Your task to perform on an android device: Open Chrome and go to the settings page Image 0: 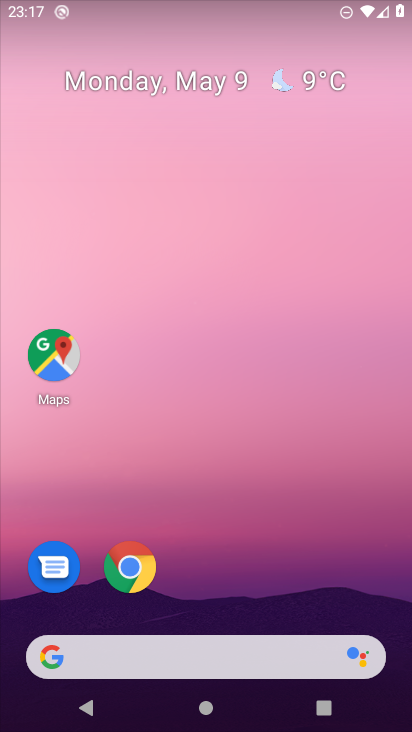
Step 0: click (206, 81)
Your task to perform on an android device: Open Chrome and go to the settings page Image 1: 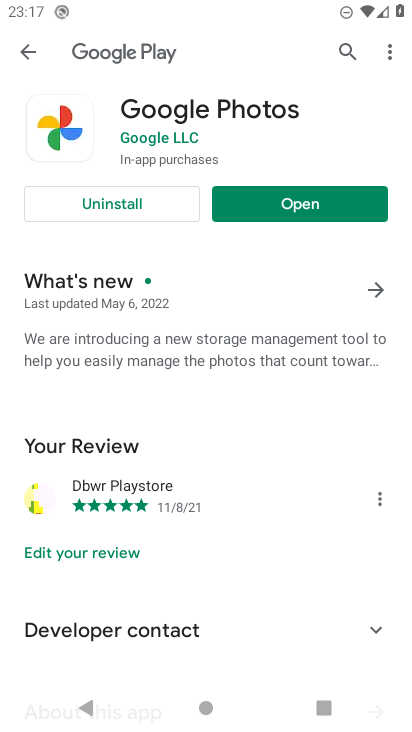
Step 1: press home button
Your task to perform on an android device: Open Chrome and go to the settings page Image 2: 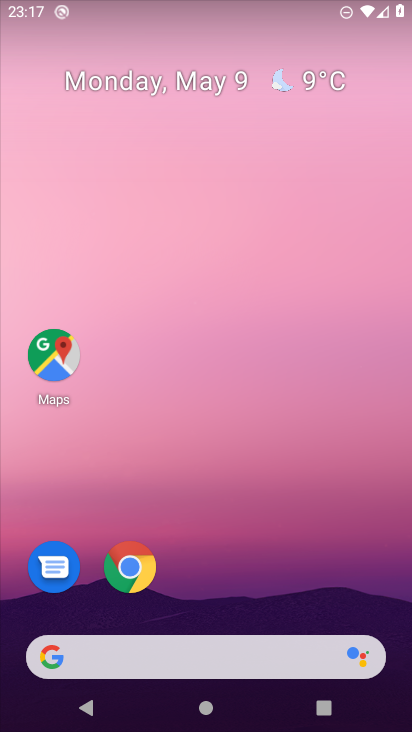
Step 2: click (127, 558)
Your task to perform on an android device: Open Chrome and go to the settings page Image 3: 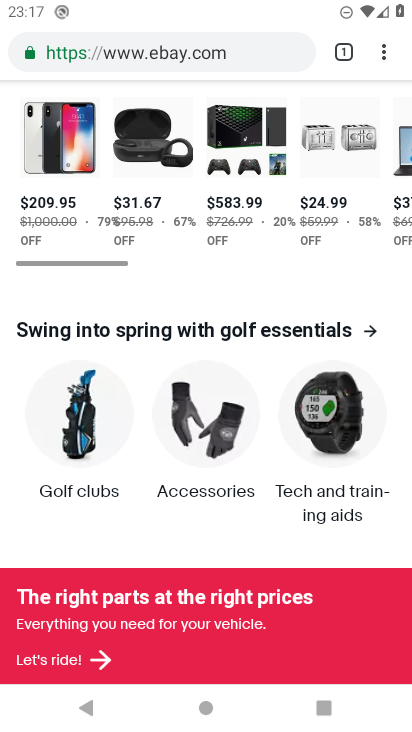
Step 3: click (381, 51)
Your task to perform on an android device: Open Chrome and go to the settings page Image 4: 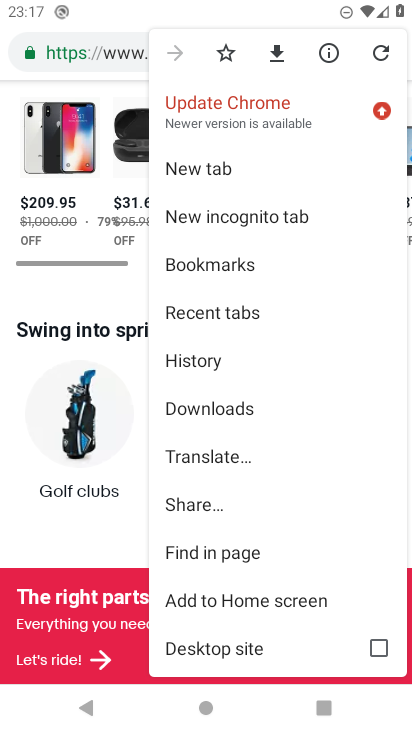
Step 4: drag from (243, 599) to (259, 264)
Your task to perform on an android device: Open Chrome and go to the settings page Image 5: 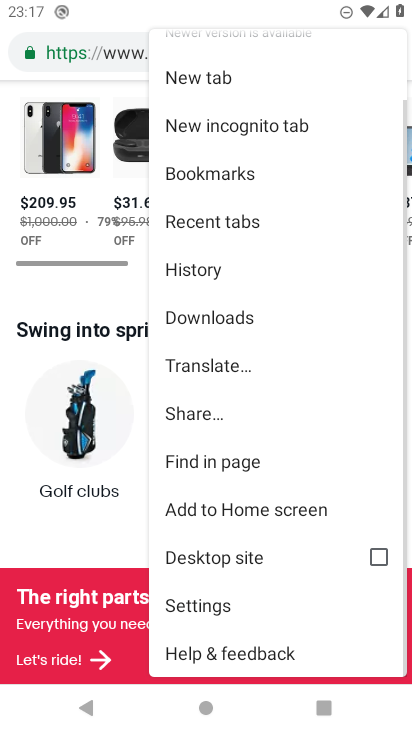
Step 5: click (237, 603)
Your task to perform on an android device: Open Chrome and go to the settings page Image 6: 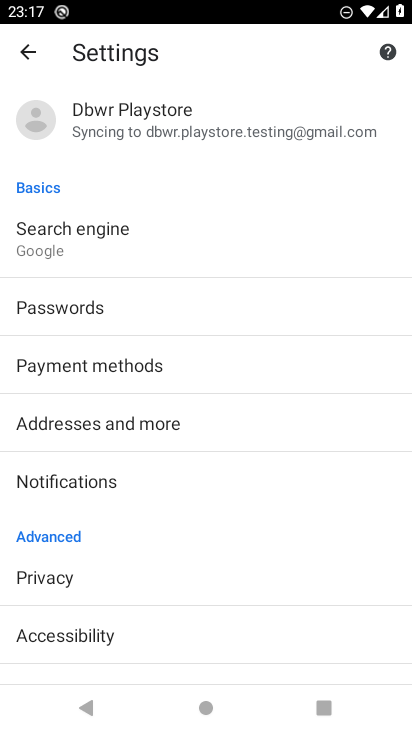
Step 6: task complete